Your task to perform on an android device: turn off javascript in the chrome app Image 0: 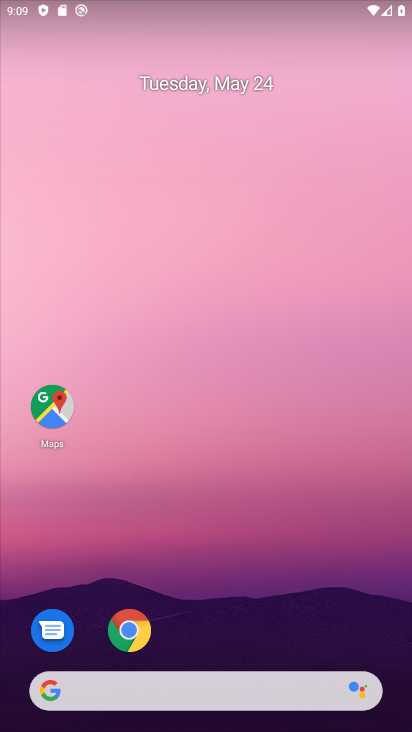
Step 0: press home button
Your task to perform on an android device: turn off javascript in the chrome app Image 1: 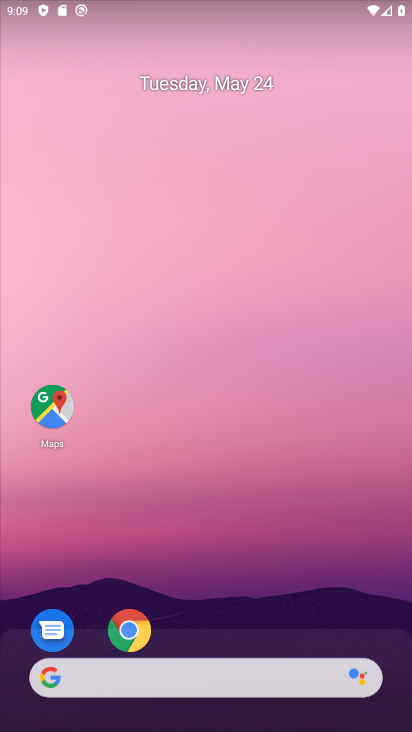
Step 1: drag from (224, 644) to (290, 17)
Your task to perform on an android device: turn off javascript in the chrome app Image 2: 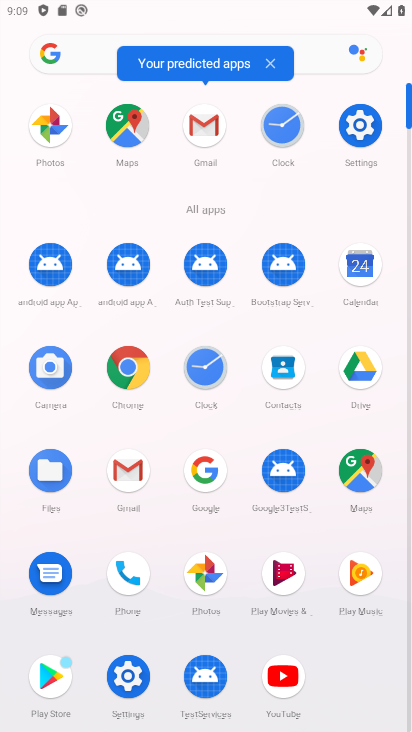
Step 2: click (121, 361)
Your task to perform on an android device: turn off javascript in the chrome app Image 3: 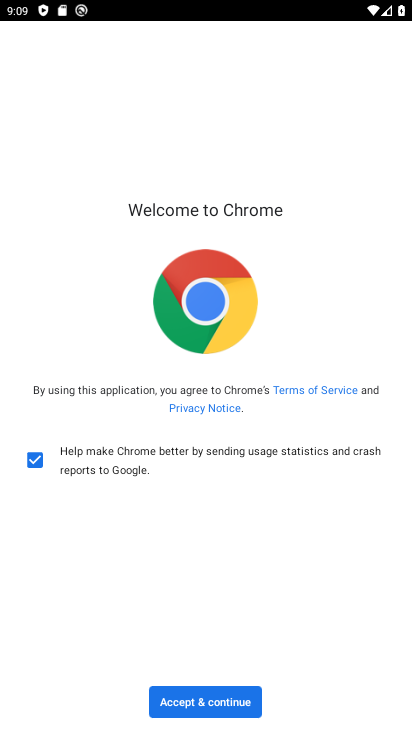
Step 3: click (197, 701)
Your task to perform on an android device: turn off javascript in the chrome app Image 4: 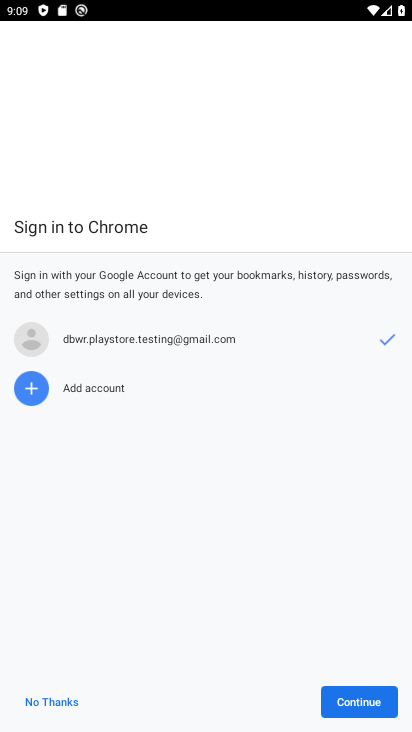
Step 4: click (358, 700)
Your task to perform on an android device: turn off javascript in the chrome app Image 5: 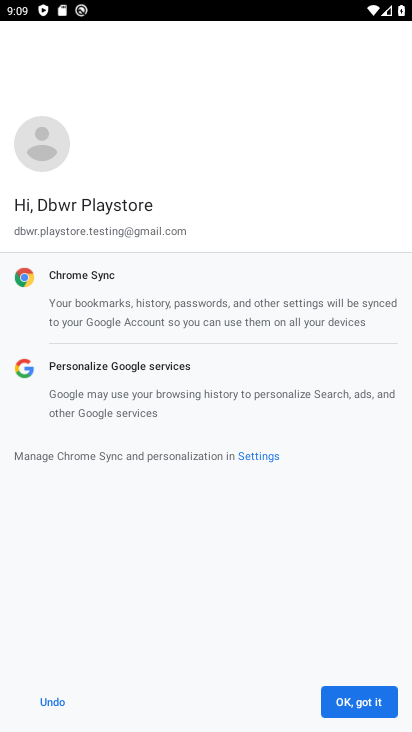
Step 5: click (358, 700)
Your task to perform on an android device: turn off javascript in the chrome app Image 6: 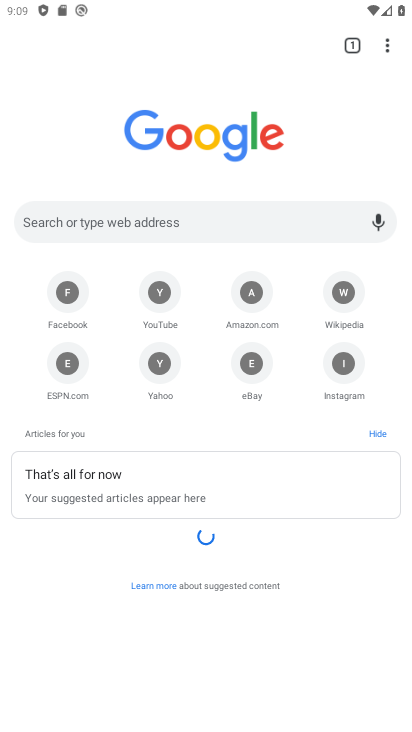
Step 6: click (388, 42)
Your task to perform on an android device: turn off javascript in the chrome app Image 7: 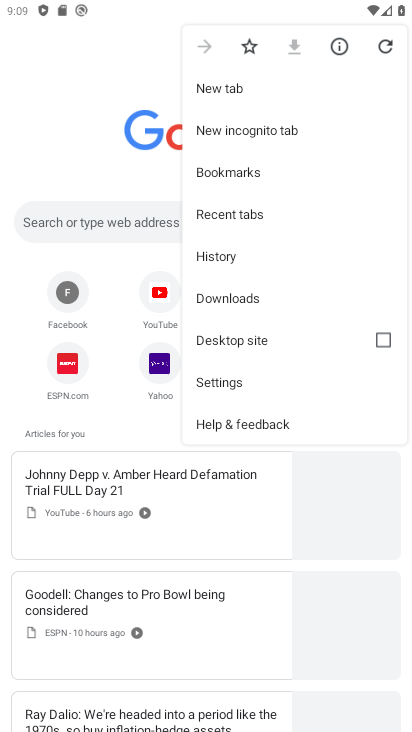
Step 7: click (250, 380)
Your task to perform on an android device: turn off javascript in the chrome app Image 8: 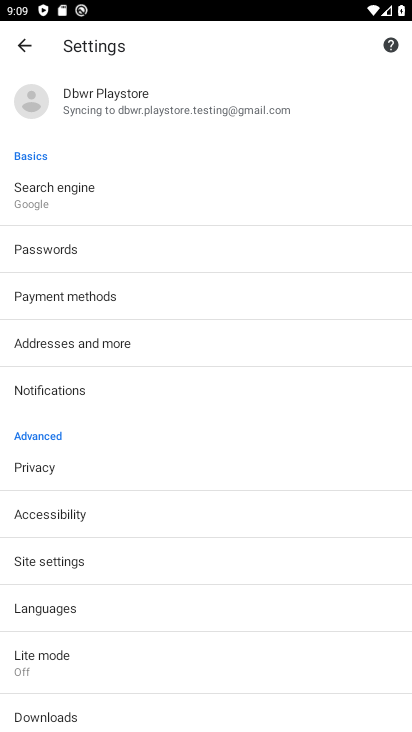
Step 8: click (95, 558)
Your task to perform on an android device: turn off javascript in the chrome app Image 9: 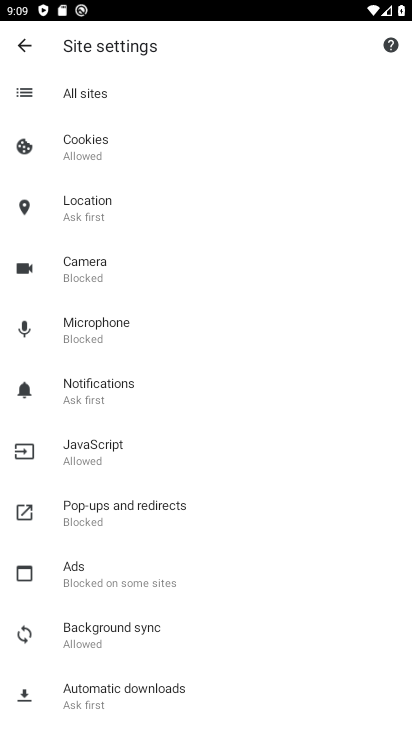
Step 9: click (131, 446)
Your task to perform on an android device: turn off javascript in the chrome app Image 10: 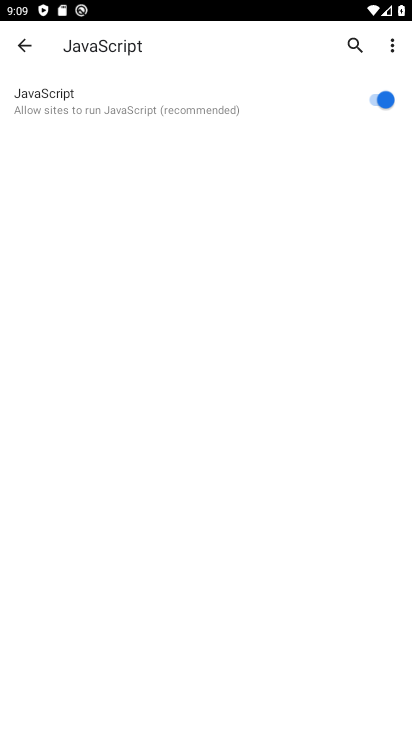
Step 10: click (377, 97)
Your task to perform on an android device: turn off javascript in the chrome app Image 11: 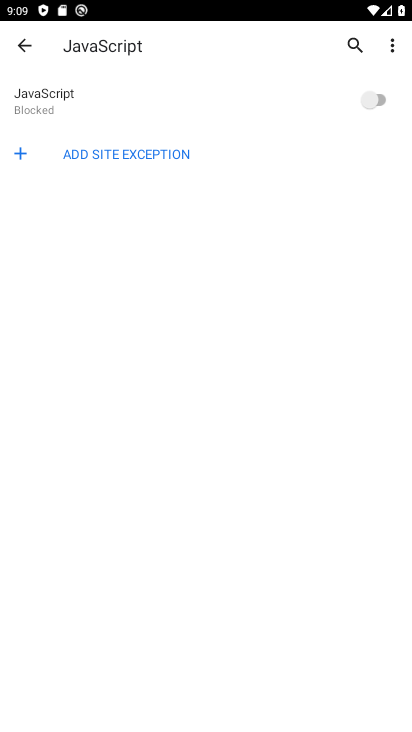
Step 11: task complete